Your task to perform on an android device: Is it going to rain tomorrow? Image 0: 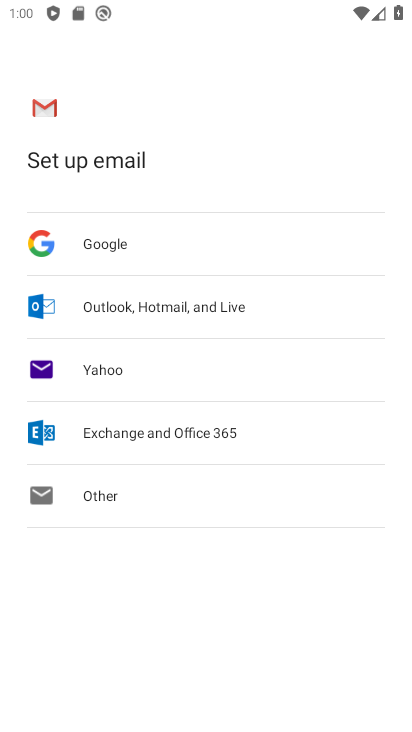
Step 0: press home button
Your task to perform on an android device: Is it going to rain tomorrow? Image 1: 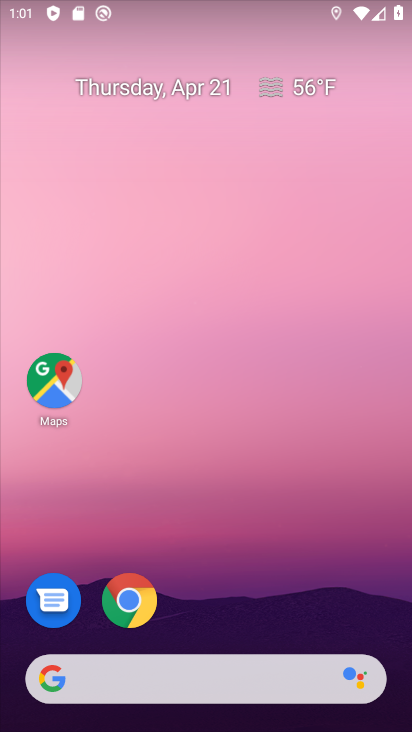
Step 1: click (298, 82)
Your task to perform on an android device: Is it going to rain tomorrow? Image 2: 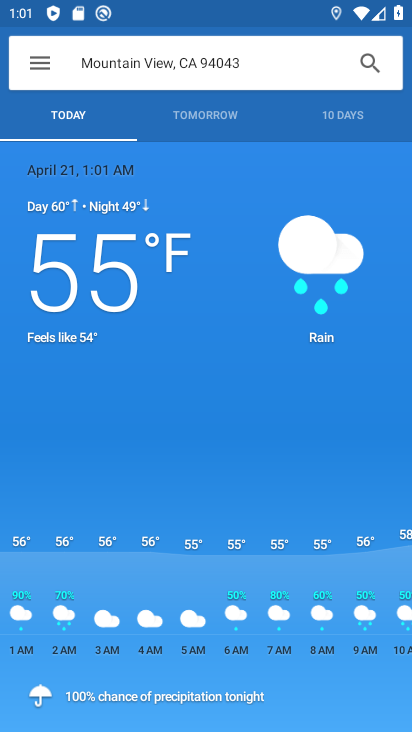
Step 2: task complete